Your task to perform on an android device: Open Amazon Image 0: 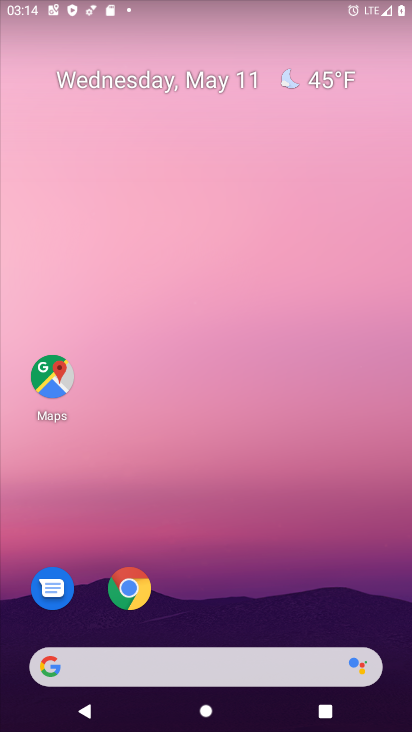
Step 0: click (140, 593)
Your task to perform on an android device: Open Amazon Image 1: 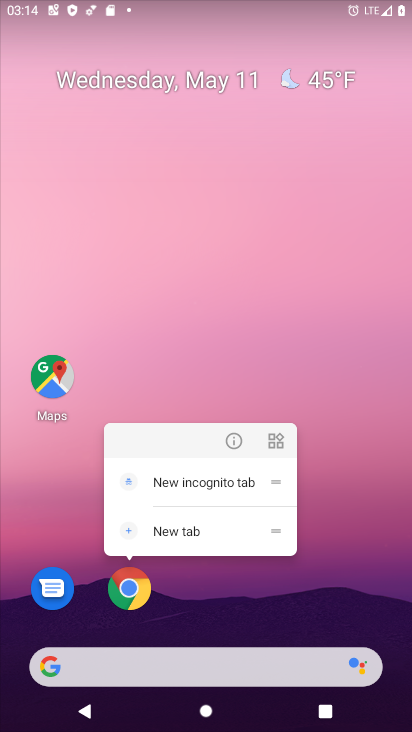
Step 1: click (131, 598)
Your task to perform on an android device: Open Amazon Image 2: 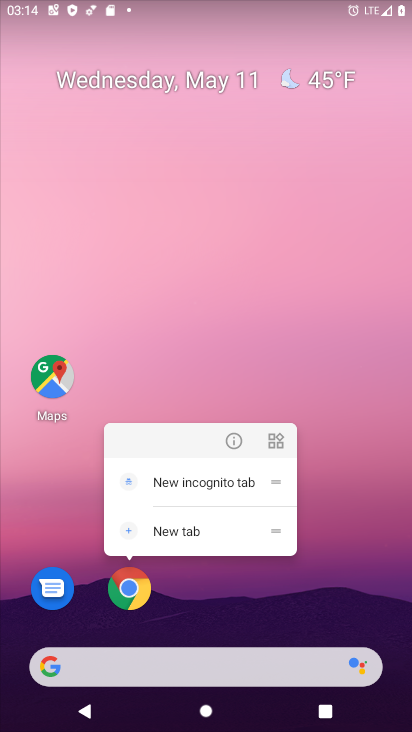
Step 2: click (130, 594)
Your task to perform on an android device: Open Amazon Image 3: 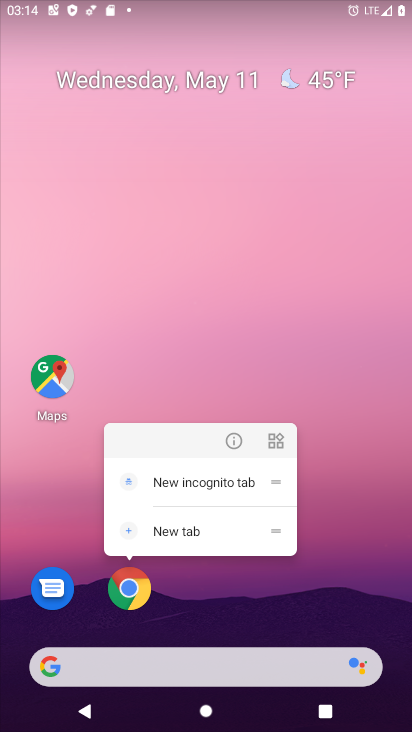
Step 3: click (128, 594)
Your task to perform on an android device: Open Amazon Image 4: 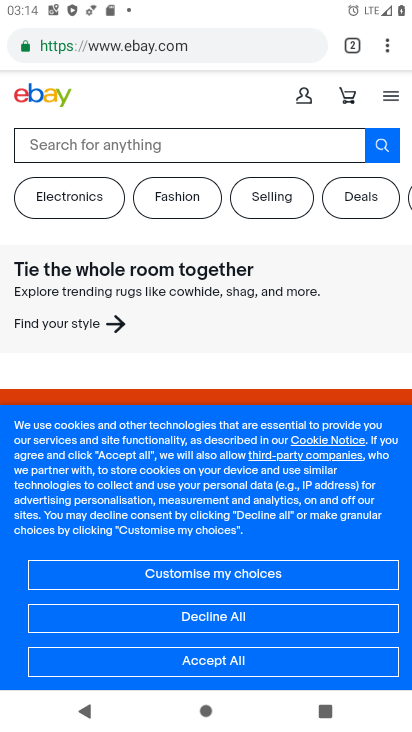
Step 4: click (352, 53)
Your task to perform on an android device: Open Amazon Image 5: 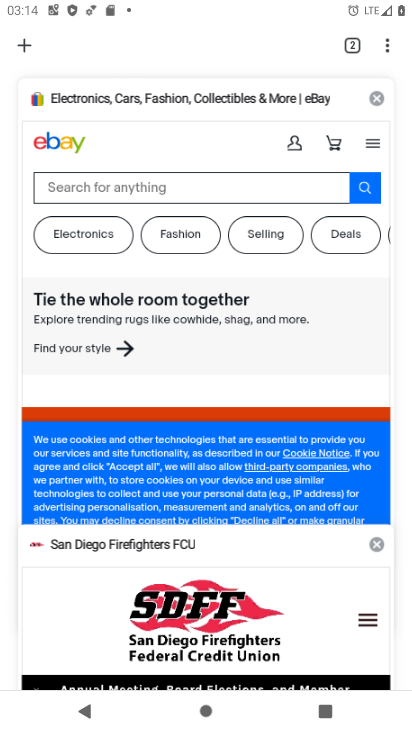
Step 5: click (19, 40)
Your task to perform on an android device: Open Amazon Image 6: 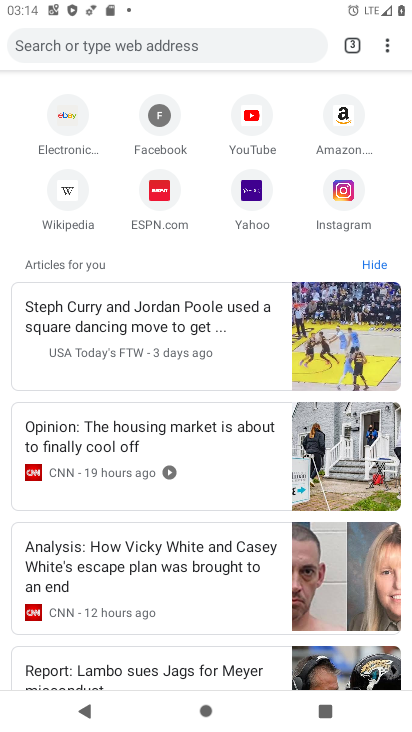
Step 6: click (339, 122)
Your task to perform on an android device: Open Amazon Image 7: 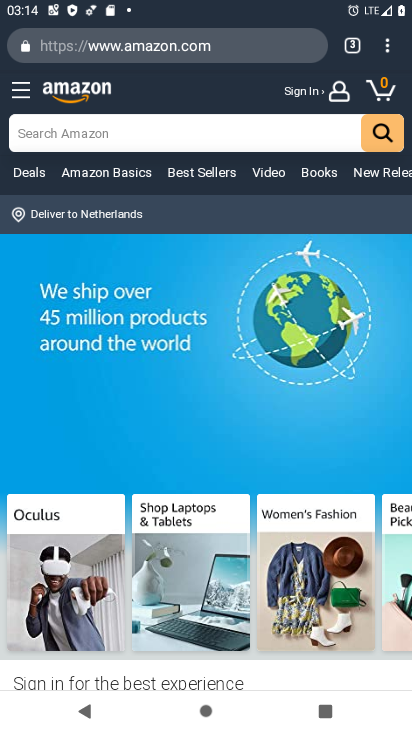
Step 7: task complete